Your task to perform on an android device: turn on the 24-hour format for clock Image 0: 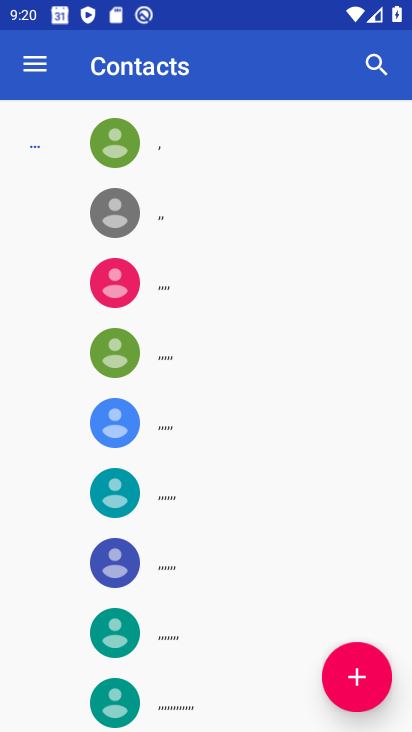
Step 0: press home button
Your task to perform on an android device: turn on the 24-hour format for clock Image 1: 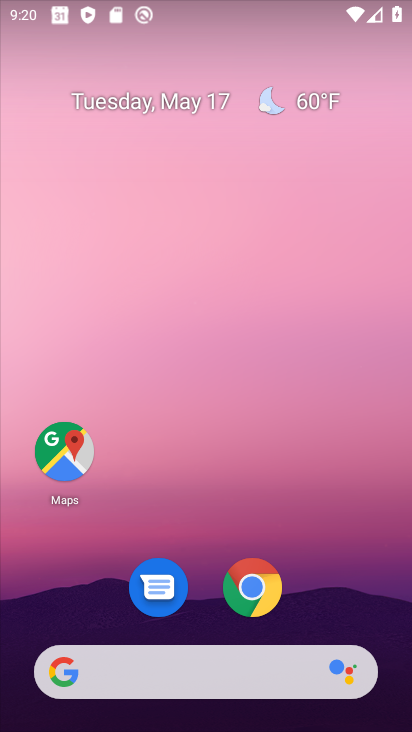
Step 1: drag from (322, 532) to (298, 307)
Your task to perform on an android device: turn on the 24-hour format for clock Image 2: 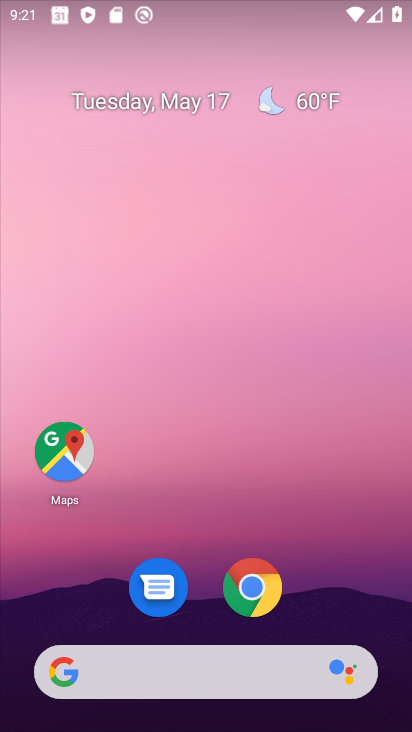
Step 2: drag from (215, 512) to (203, 185)
Your task to perform on an android device: turn on the 24-hour format for clock Image 3: 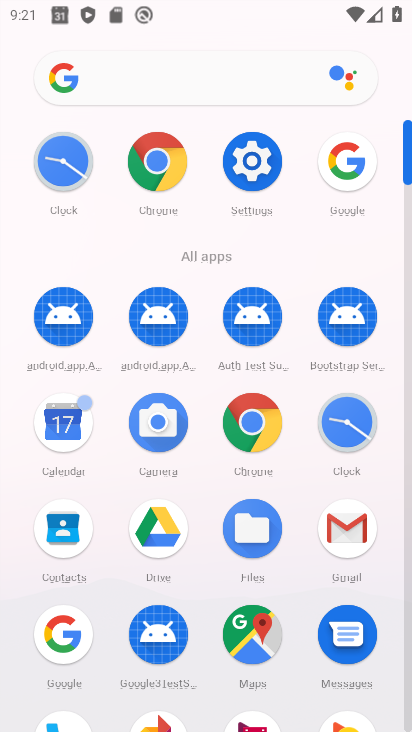
Step 3: click (340, 436)
Your task to perform on an android device: turn on the 24-hour format for clock Image 4: 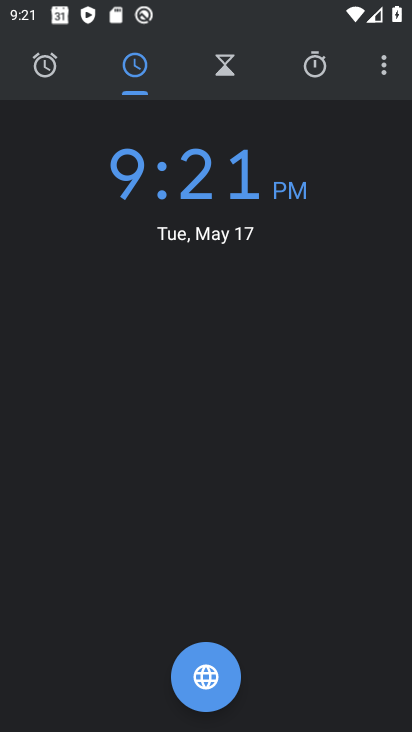
Step 4: click (384, 79)
Your task to perform on an android device: turn on the 24-hour format for clock Image 5: 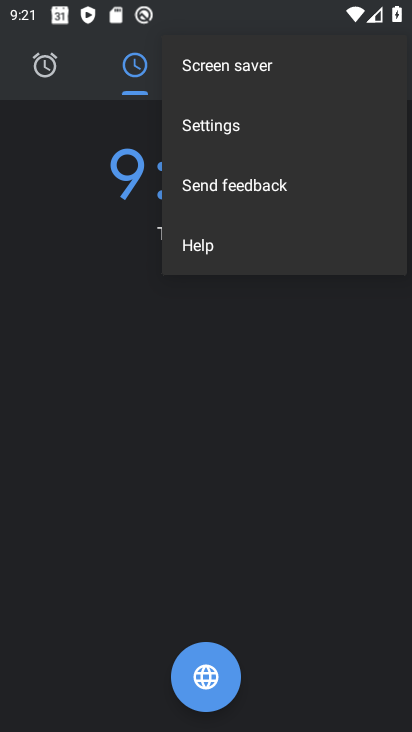
Step 5: click (215, 127)
Your task to perform on an android device: turn on the 24-hour format for clock Image 6: 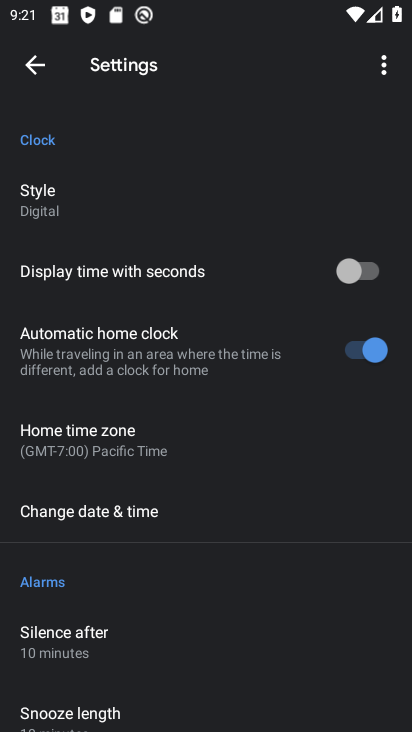
Step 6: click (215, 527)
Your task to perform on an android device: turn on the 24-hour format for clock Image 7: 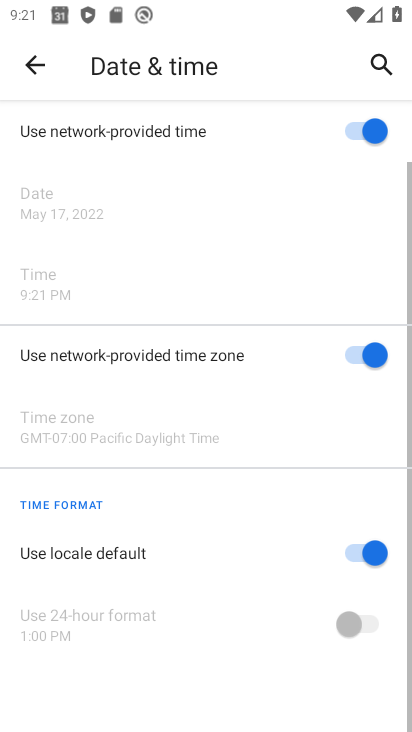
Step 7: drag from (204, 558) to (108, 261)
Your task to perform on an android device: turn on the 24-hour format for clock Image 8: 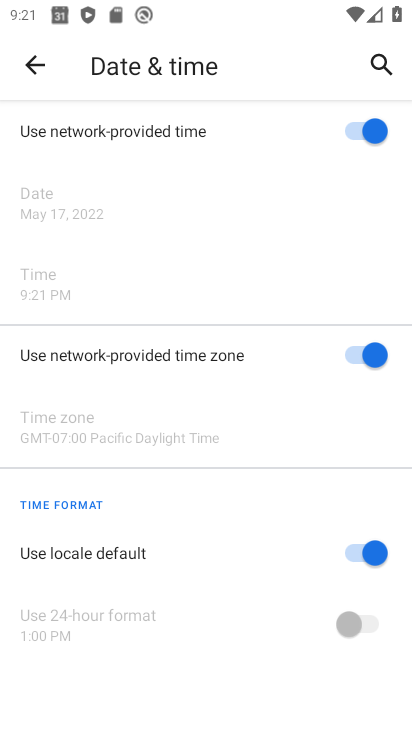
Step 8: click (366, 568)
Your task to perform on an android device: turn on the 24-hour format for clock Image 9: 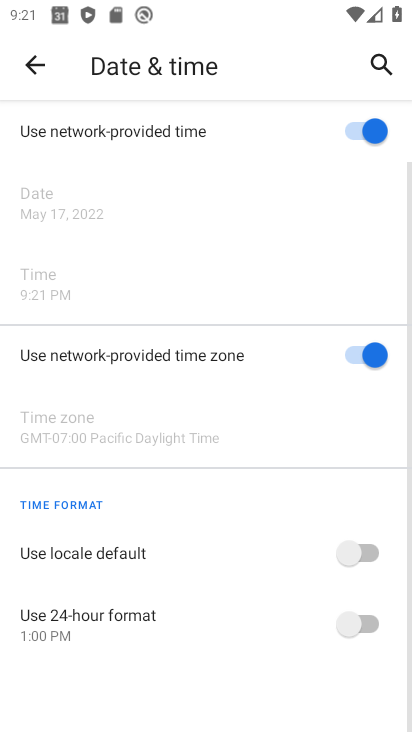
Step 9: click (346, 647)
Your task to perform on an android device: turn on the 24-hour format for clock Image 10: 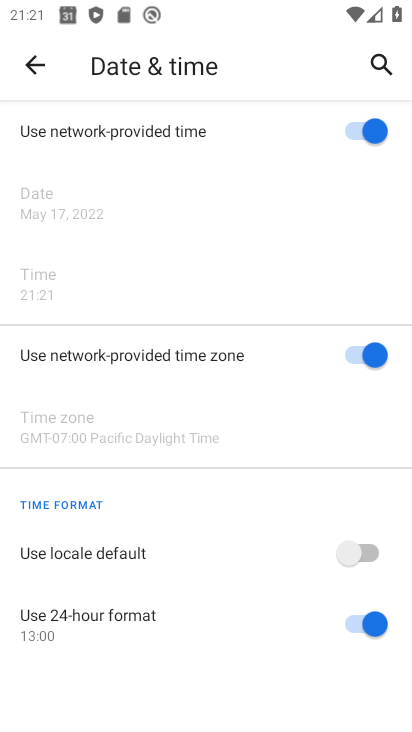
Step 10: task complete